Your task to perform on an android device: turn on location history Image 0: 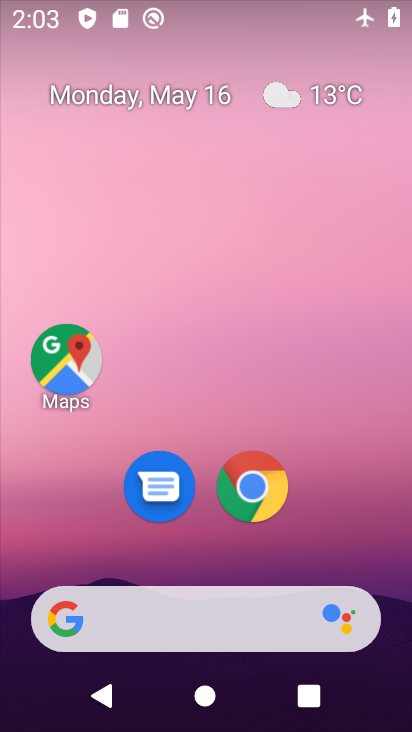
Step 0: drag from (389, 375) to (384, 55)
Your task to perform on an android device: turn on location history Image 1: 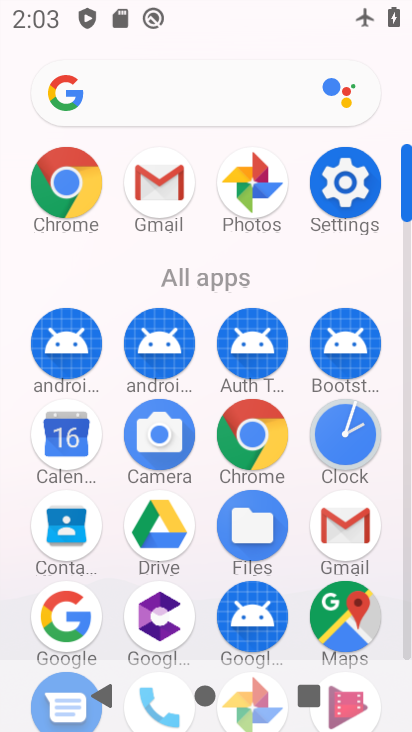
Step 1: click (344, 221)
Your task to perform on an android device: turn on location history Image 2: 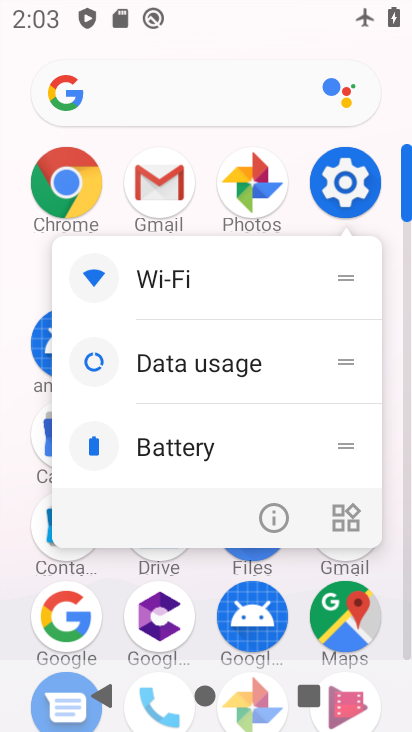
Step 2: click (344, 220)
Your task to perform on an android device: turn on location history Image 3: 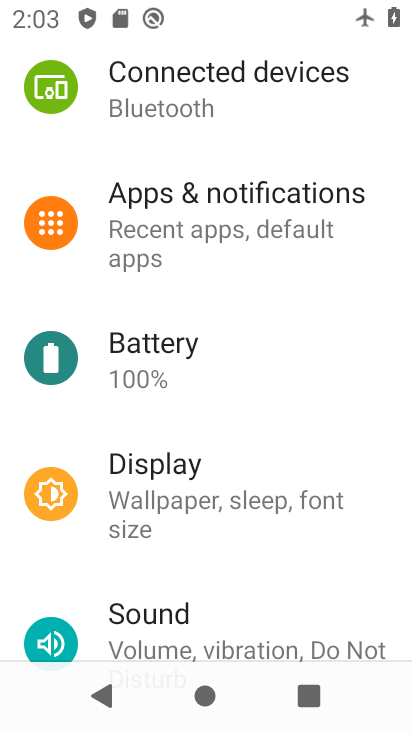
Step 3: drag from (228, 561) to (242, 161)
Your task to perform on an android device: turn on location history Image 4: 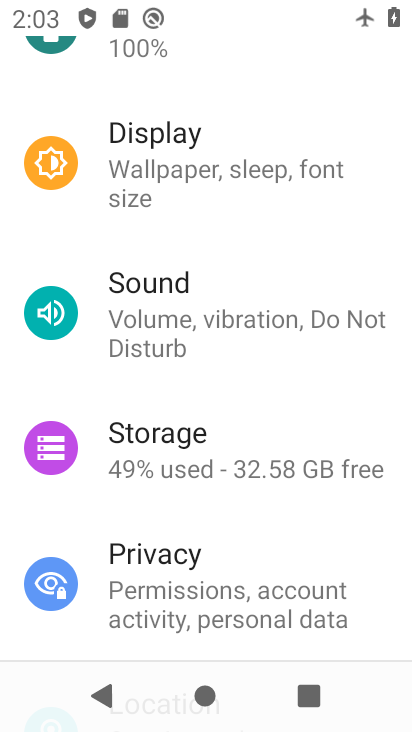
Step 4: drag from (240, 551) to (260, 159)
Your task to perform on an android device: turn on location history Image 5: 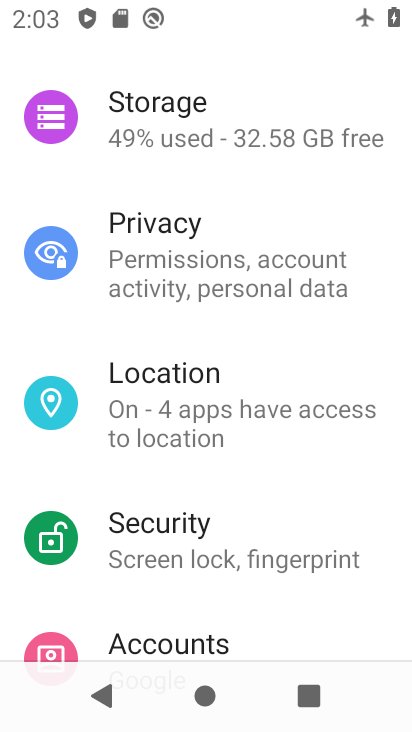
Step 5: drag from (261, 542) to (243, 187)
Your task to perform on an android device: turn on location history Image 6: 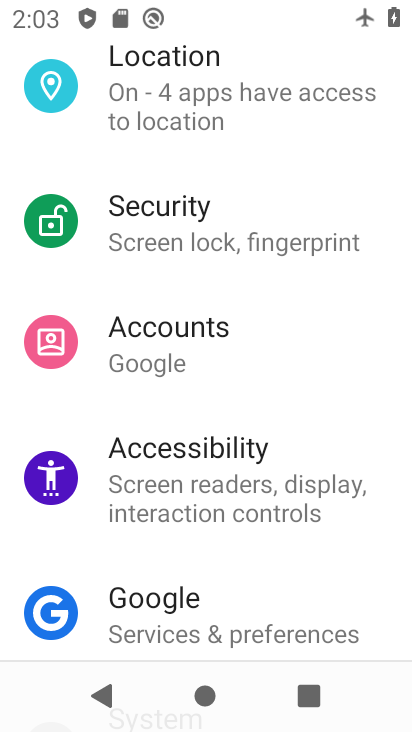
Step 6: click (198, 120)
Your task to perform on an android device: turn on location history Image 7: 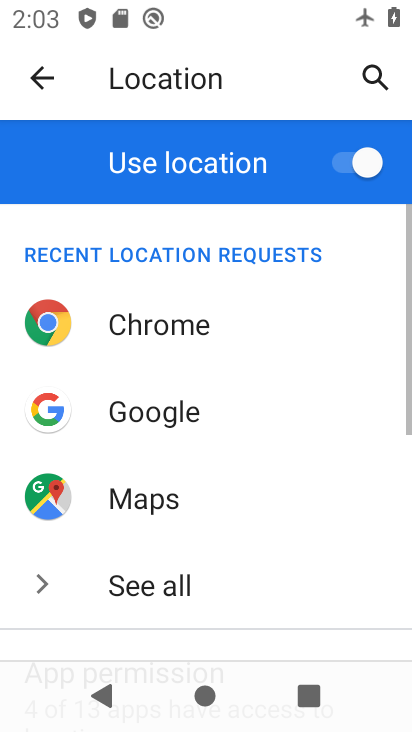
Step 7: task complete